Your task to perform on an android device: install app "Adobe Express: Graphic Design" Image 0: 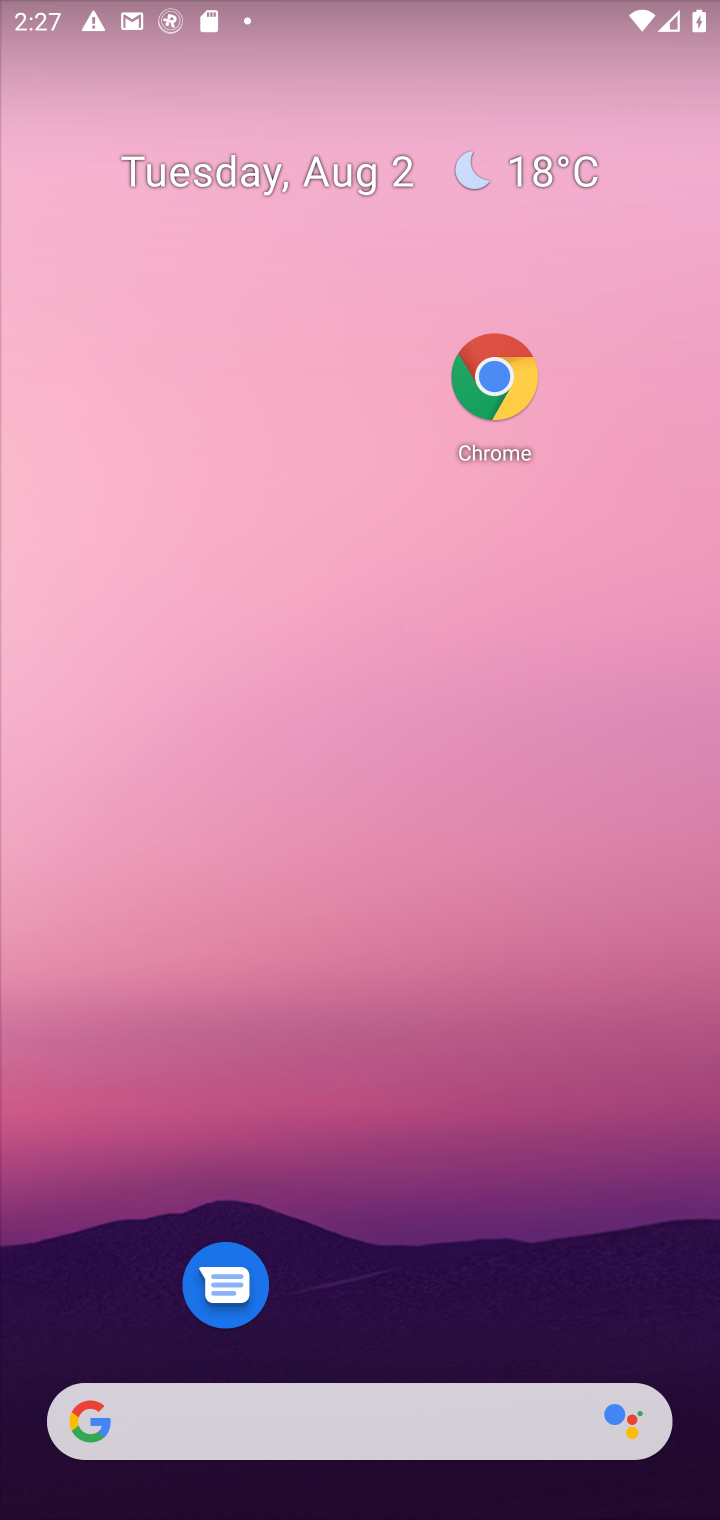
Step 0: drag from (400, 1329) to (318, 14)
Your task to perform on an android device: install app "Adobe Express: Graphic Design" Image 1: 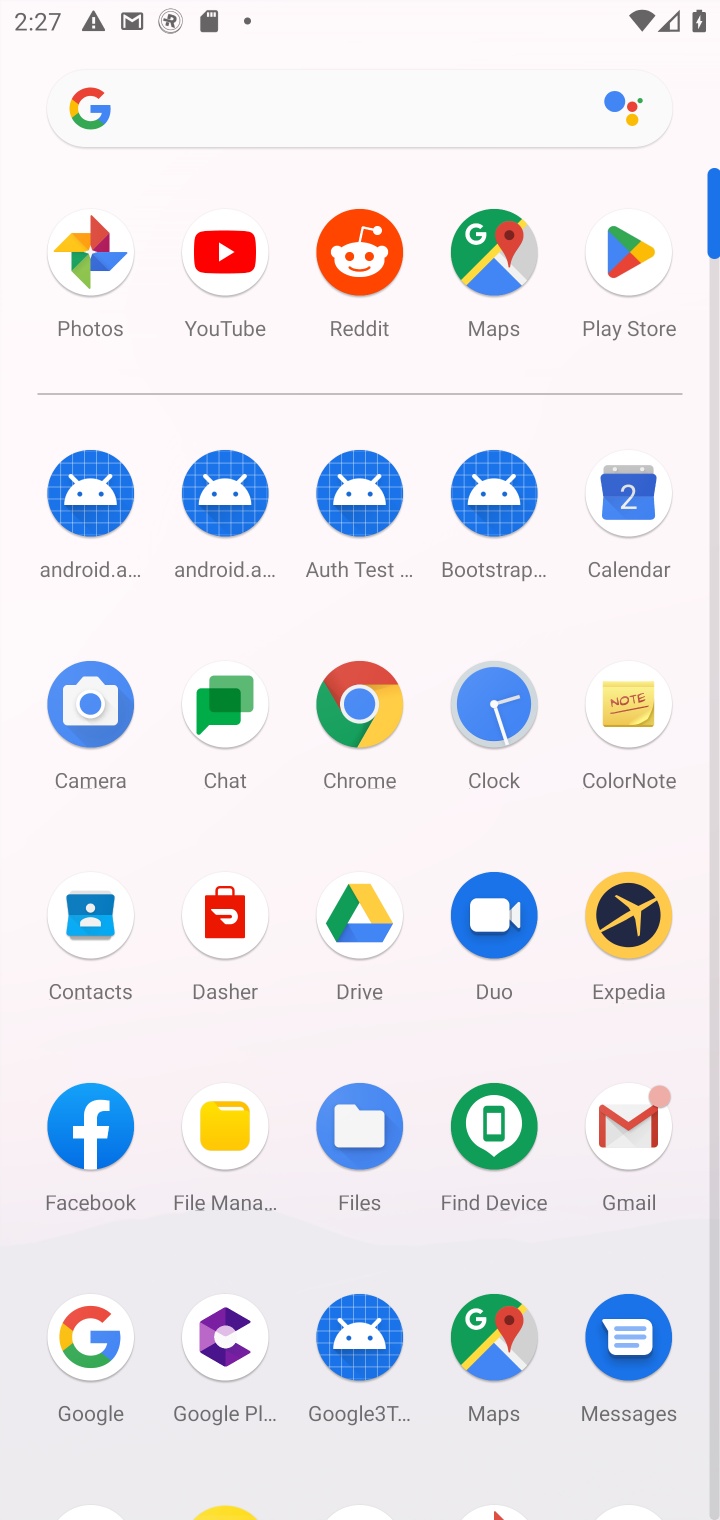
Step 1: click (583, 313)
Your task to perform on an android device: install app "Adobe Express: Graphic Design" Image 2: 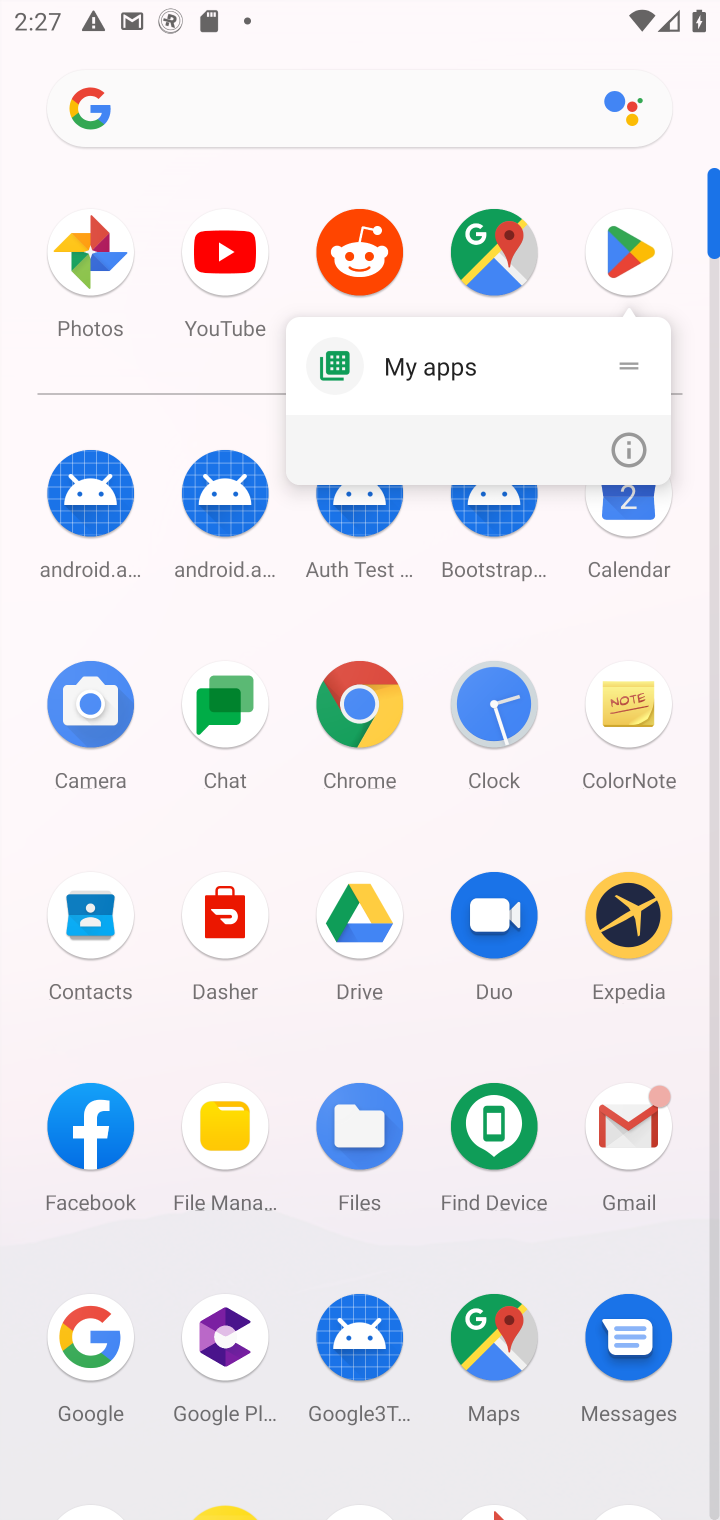
Step 2: click (583, 313)
Your task to perform on an android device: install app "Adobe Express: Graphic Design" Image 3: 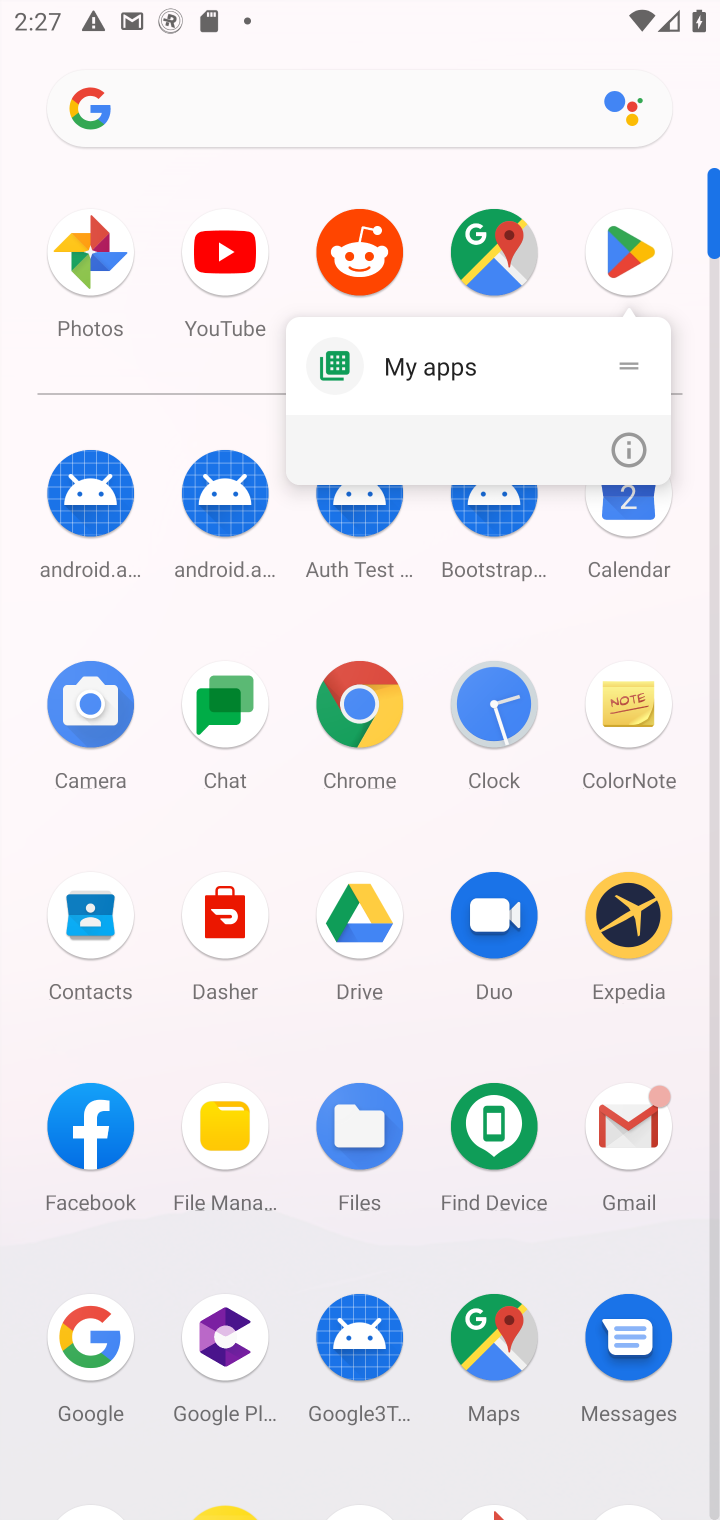
Step 3: click (599, 219)
Your task to perform on an android device: install app "Adobe Express: Graphic Design" Image 4: 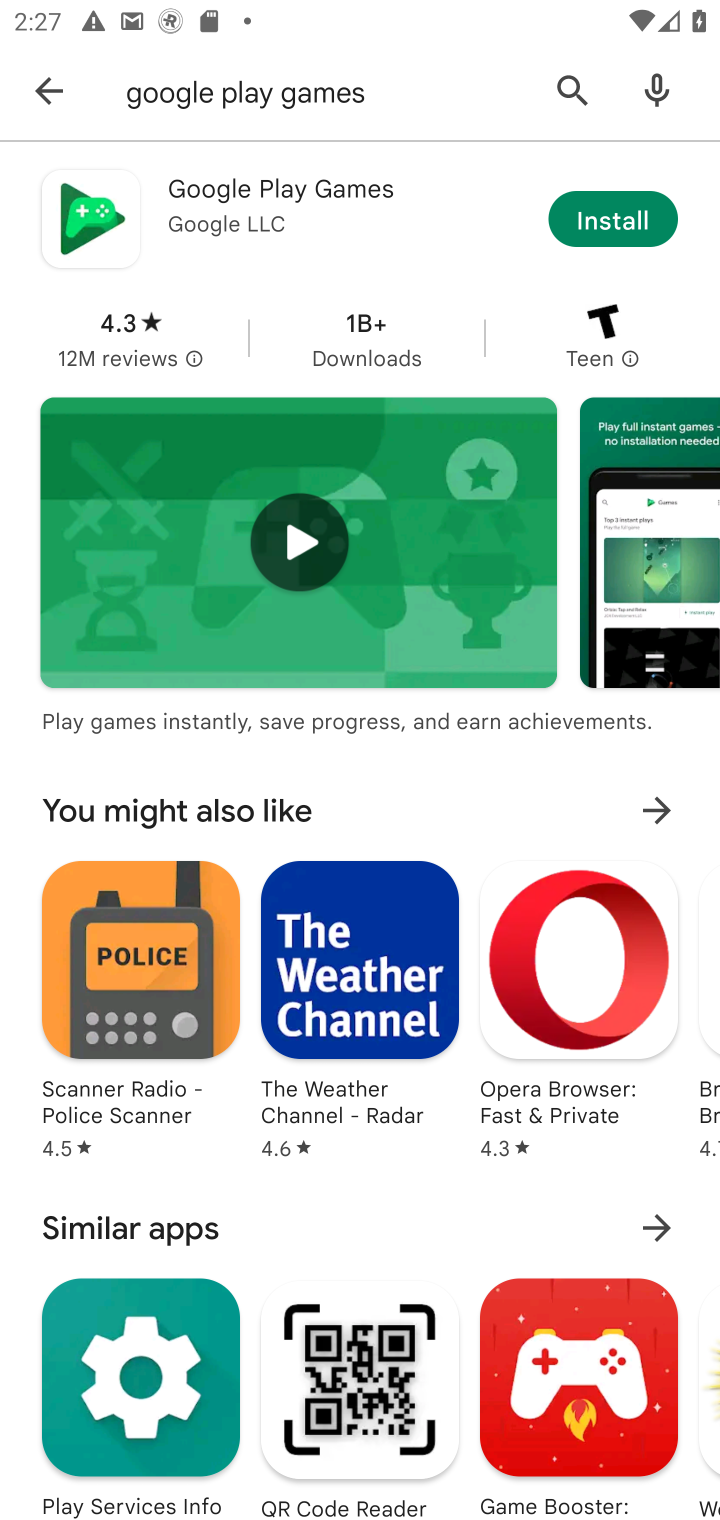
Step 4: click (615, 99)
Your task to perform on an android device: install app "Adobe Express: Graphic Design" Image 5: 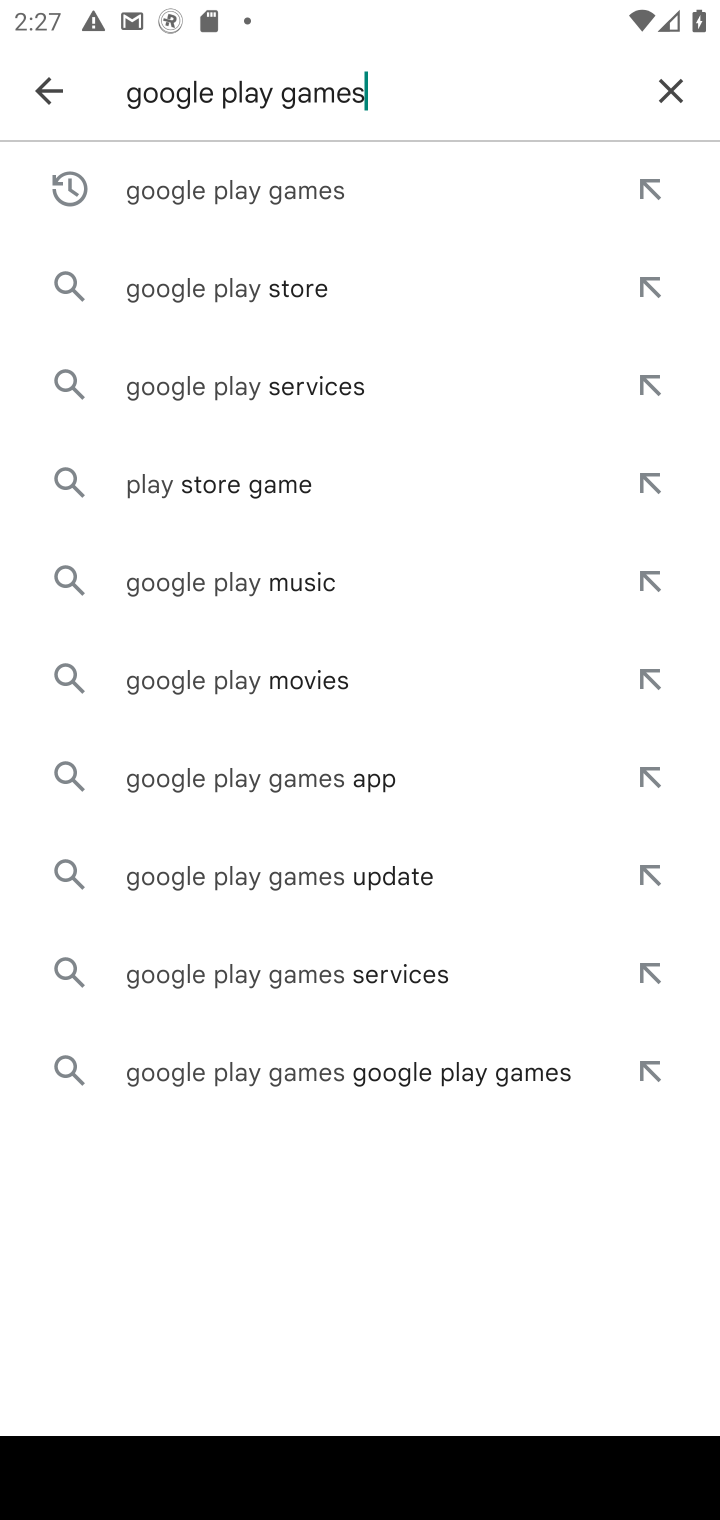
Step 5: click (664, 95)
Your task to perform on an android device: install app "Adobe Express: Graphic Design" Image 6: 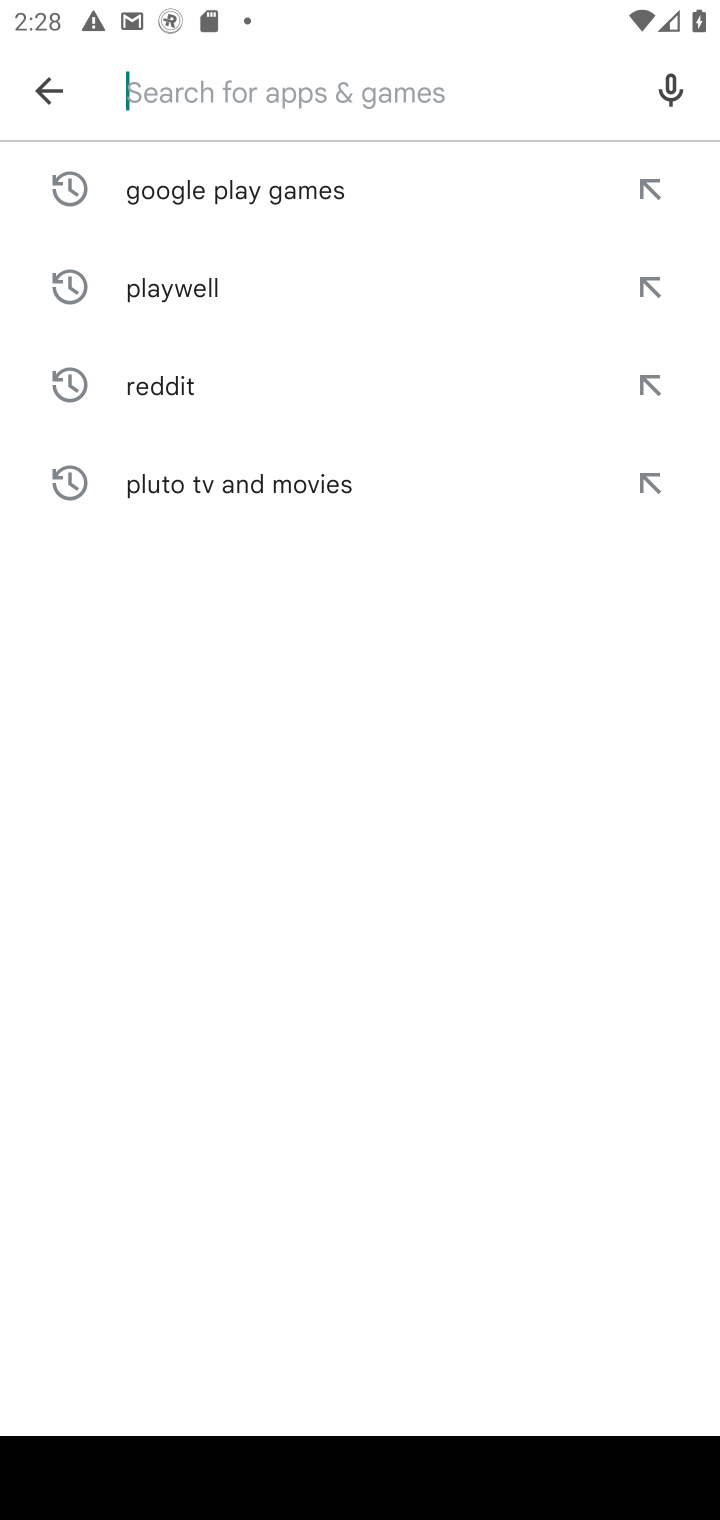
Step 6: type "Adobe Express: Graphic Design"
Your task to perform on an android device: install app "Adobe Express: Graphic Design" Image 7: 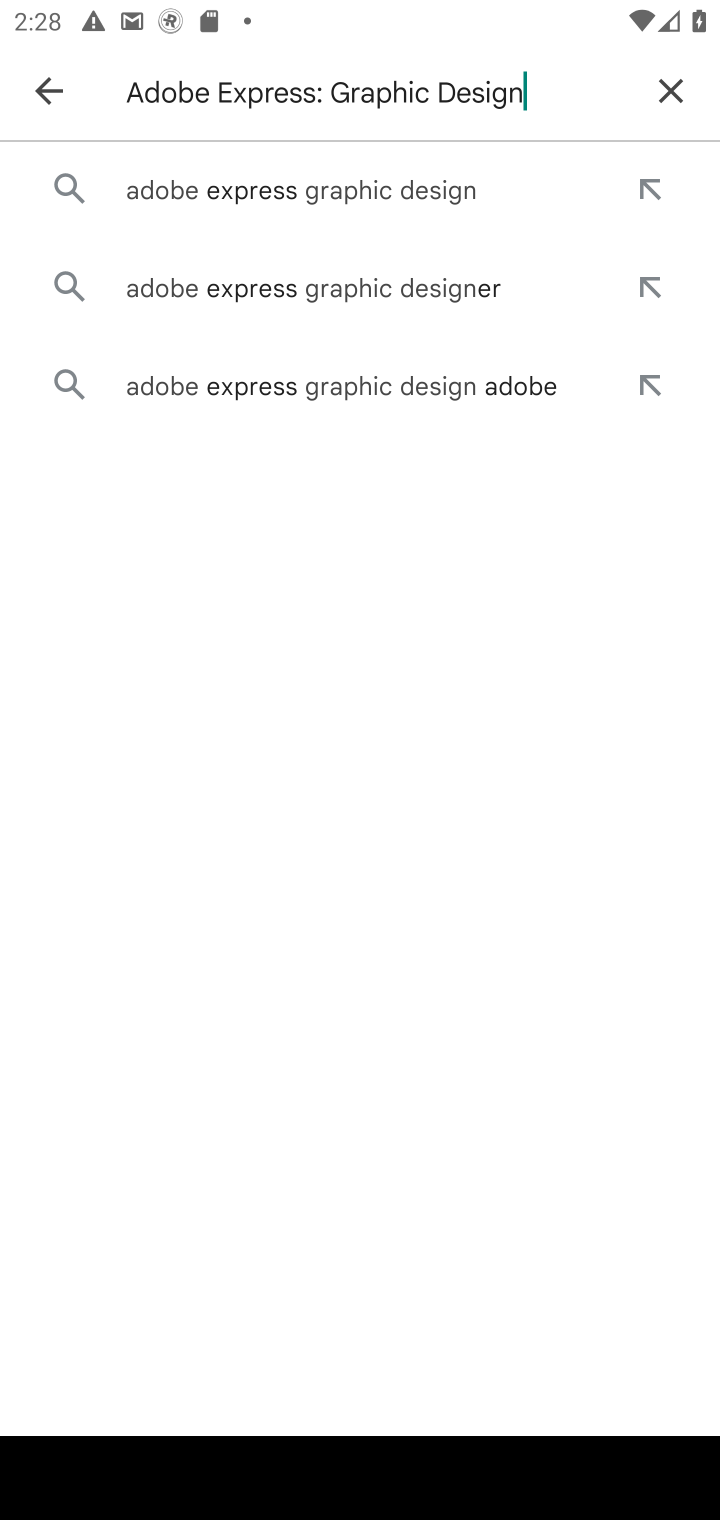
Step 7: click (169, 176)
Your task to perform on an android device: install app "Adobe Express: Graphic Design" Image 8: 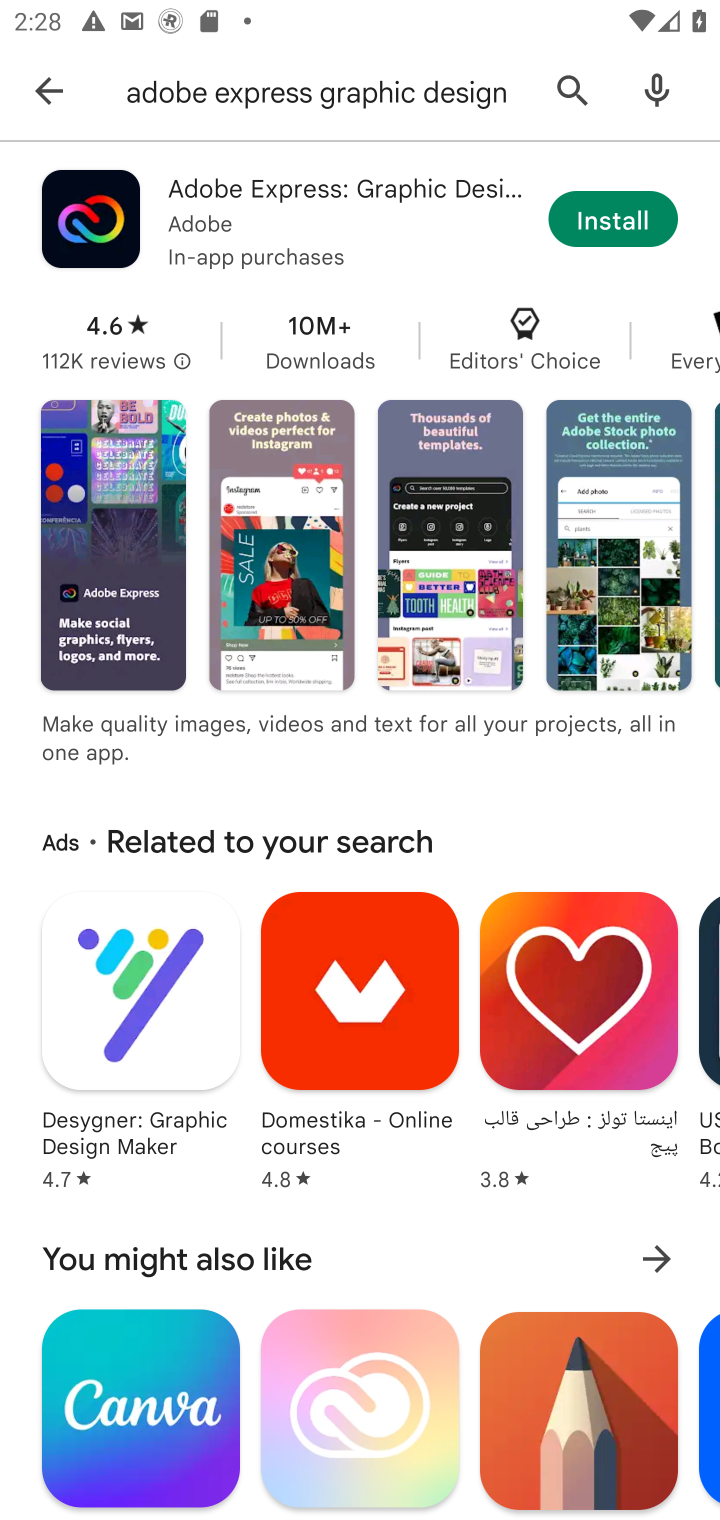
Step 8: click (575, 236)
Your task to perform on an android device: install app "Adobe Express: Graphic Design" Image 9: 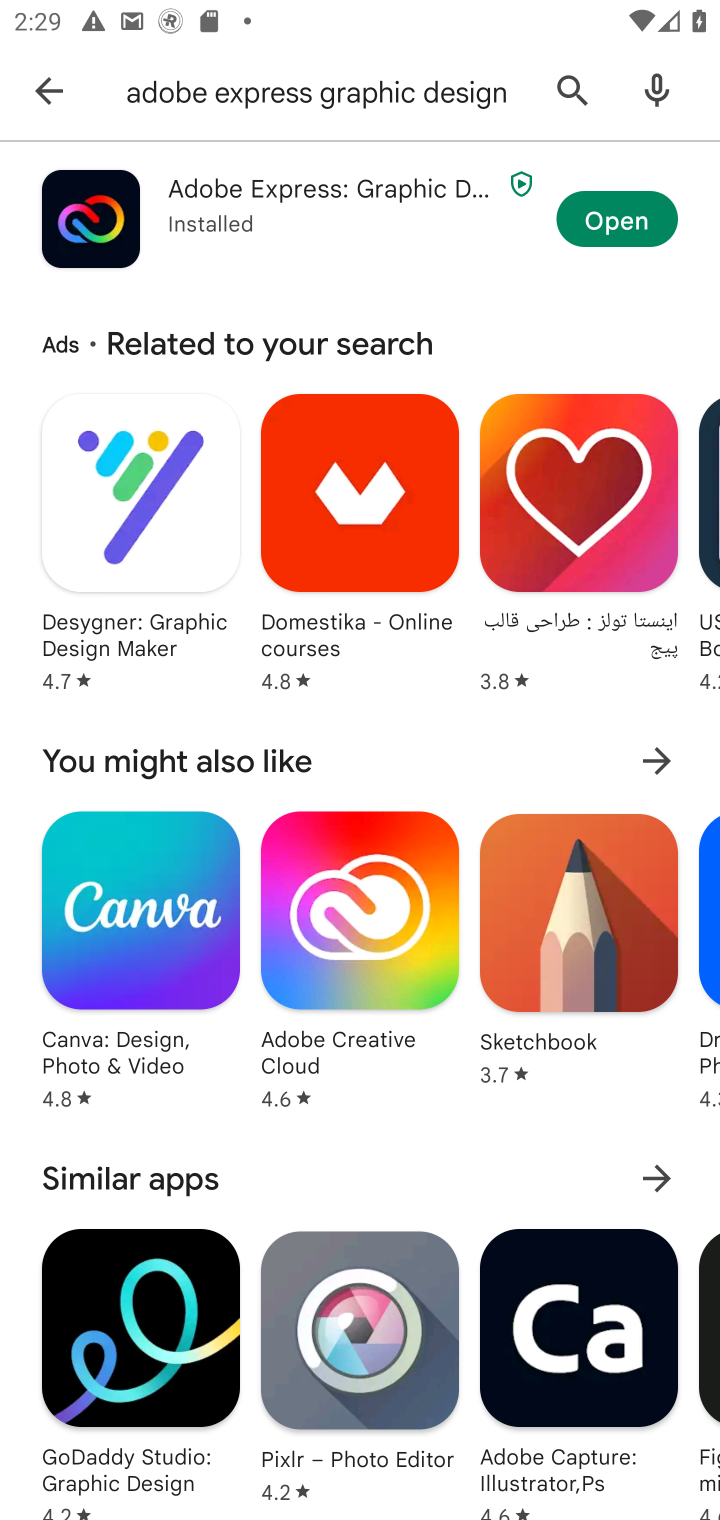
Step 9: task complete